Your task to perform on an android device: Go to Android settings Image 0: 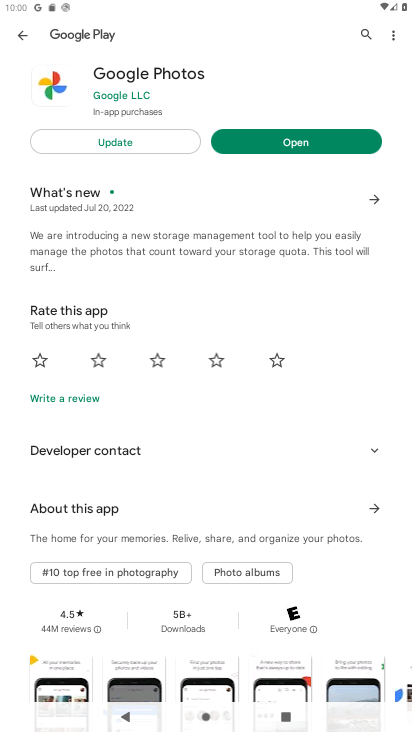
Step 0: press home button
Your task to perform on an android device: Go to Android settings Image 1: 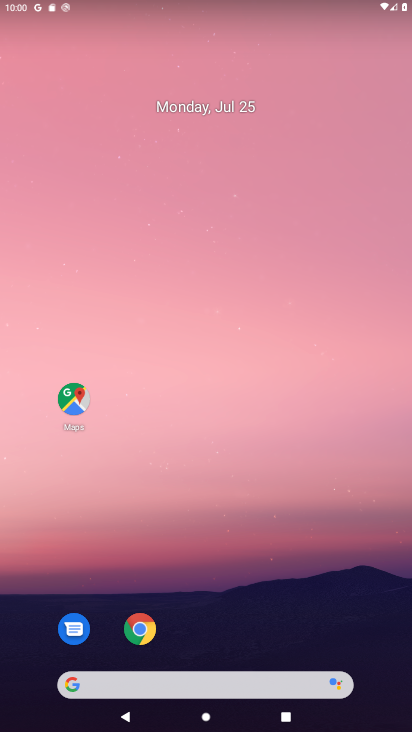
Step 1: drag from (227, 501) to (255, 99)
Your task to perform on an android device: Go to Android settings Image 2: 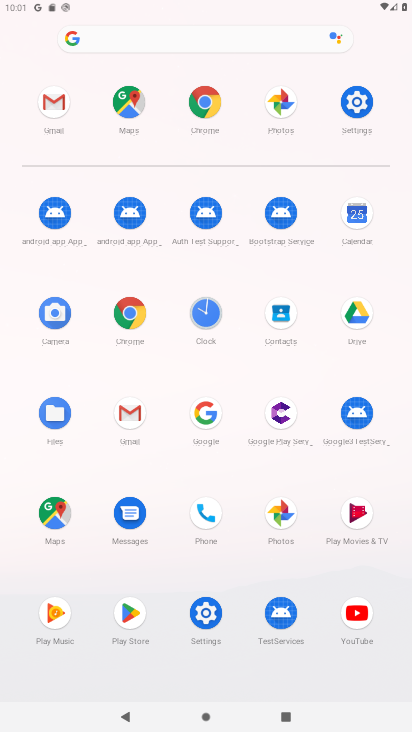
Step 2: click (358, 105)
Your task to perform on an android device: Go to Android settings Image 3: 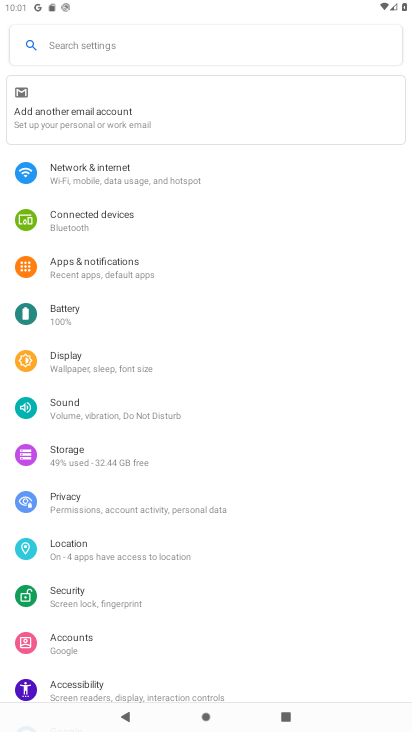
Step 3: task complete